Your task to perform on an android device: set an alarm Image 0: 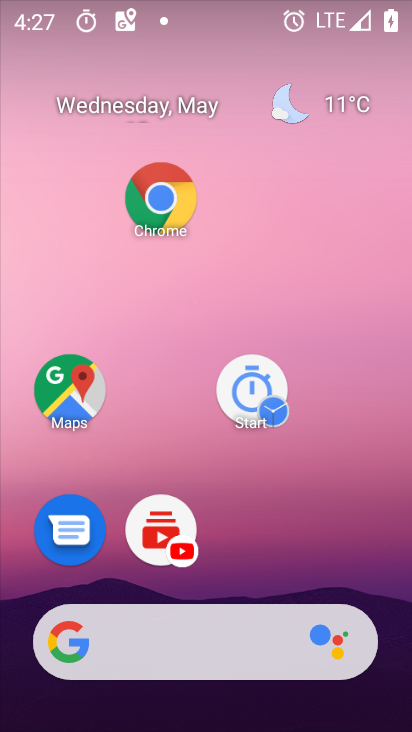
Step 0: drag from (349, 683) to (218, 34)
Your task to perform on an android device: set an alarm Image 1: 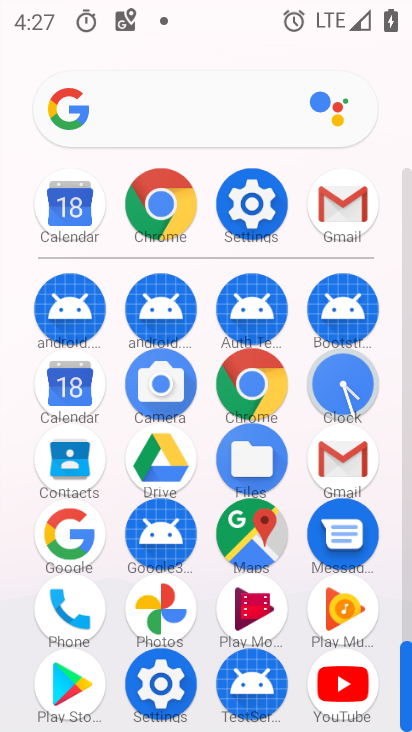
Step 1: click (335, 391)
Your task to perform on an android device: set an alarm Image 2: 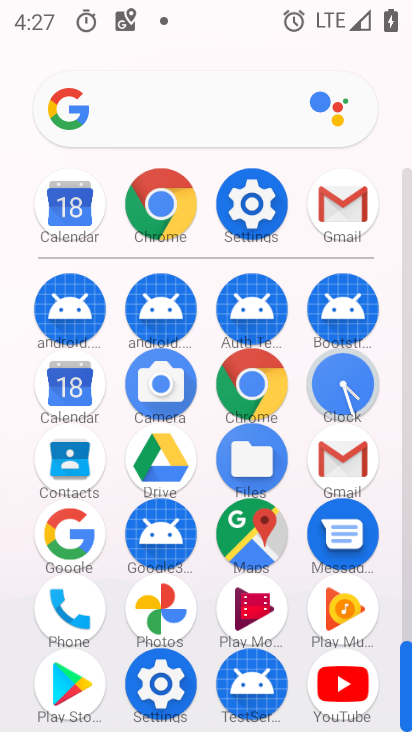
Step 2: click (335, 391)
Your task to perform on an android device: set an alarm Image 3: 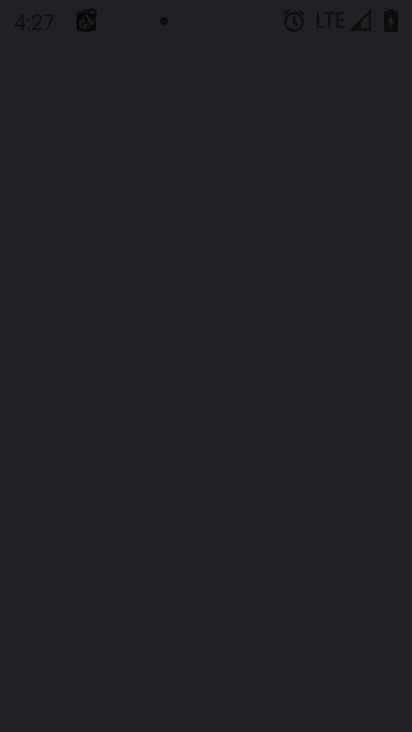
Step 3: click (335, 391)
Your task to perform on an android device: set an alarm Image 4: 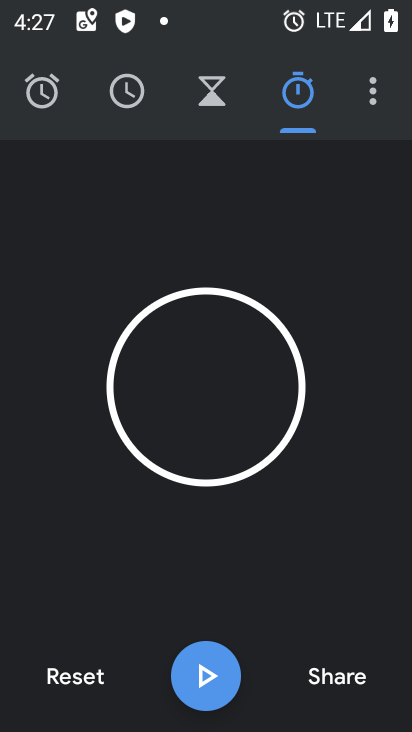
Step 4: click (50, 100)
Your task to perform on an android device: set an alarm Image 5: 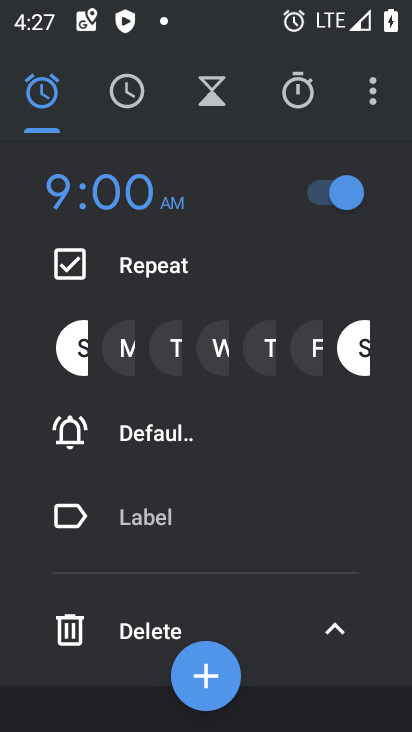
Step 5: click (336, 197)
Your task to perform on an android device: set an alarm Image 6: 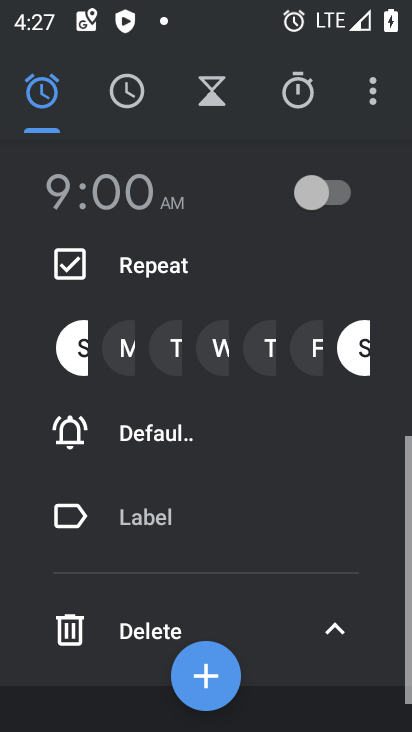
Step 6: click (336, 197)
Your task to perform on an android device: set an alarm Image 7: 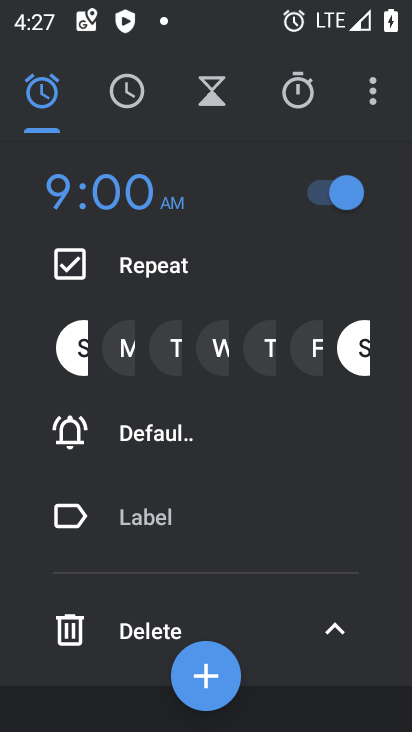
Step 7: task complete